Your task to perform on an android device: What's on my calendar today? Image 0: 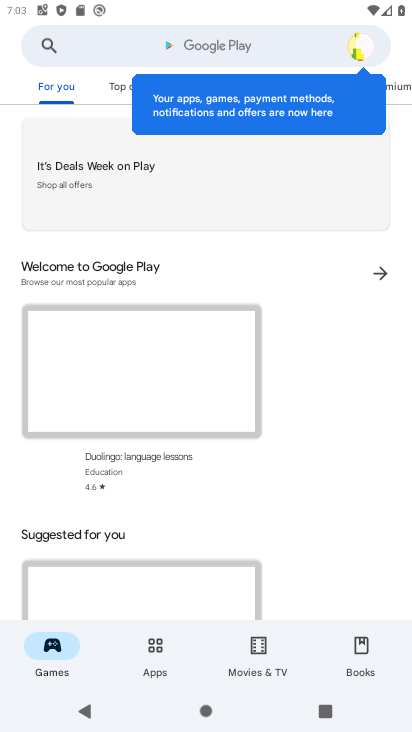
Step 0: press home button
Your task to perform on an android device: What's on my calendar today? Image 1: 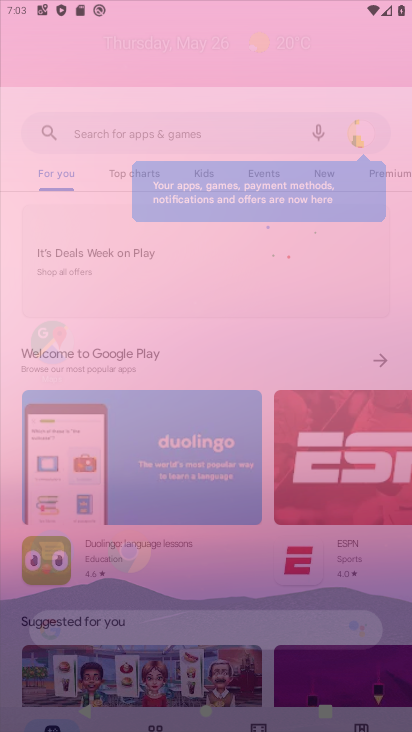
Step 1: drag from (368, 598) to (306, 119)
Your task to perform on an android device: What's on my calendar today? Image 2: 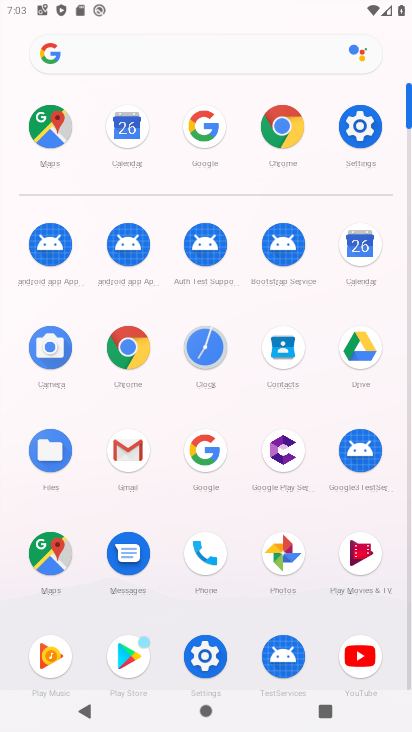
Step 2: click (356, 250)
Your task to perform on an android device: What's on my calendar today? Image 3: 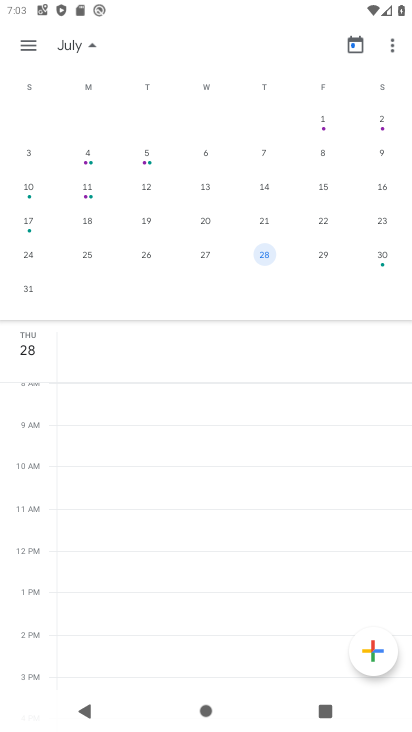
Step 3: click (205, 262)
Your task to perform on an android device: What's on my calendar today? Image 4: 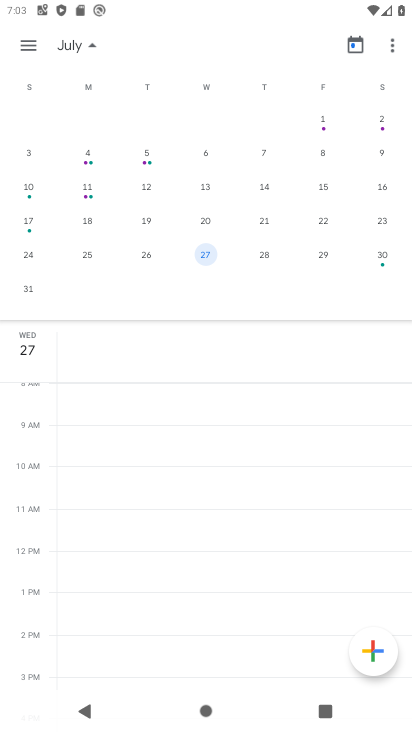
Step 4: task complete